Your task to perform on an android device: Go to Wikipedia Image 0: 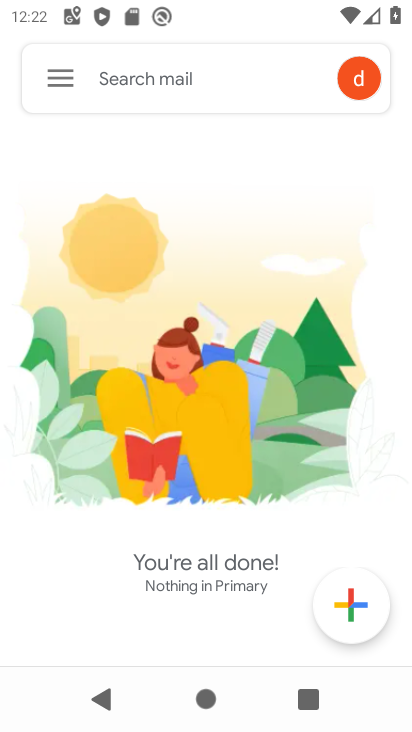
Step 0: press home button
Your task to perform on an android device: Go to Wikipedia Image 1: 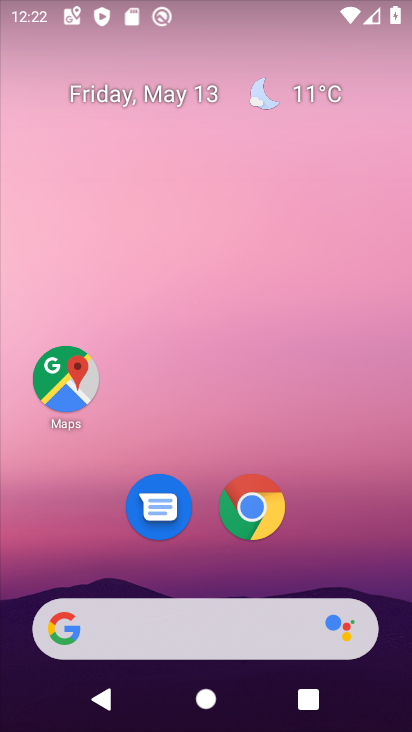
Step 1: click (232, 524)
Your task to perform on an android device: Go to Wikipedia Image 2: 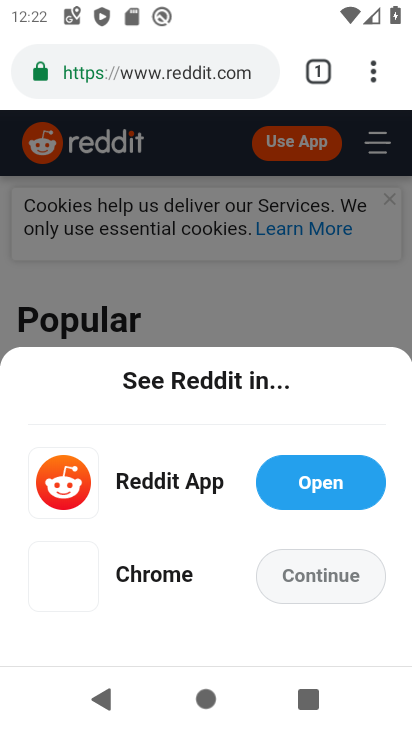
Step 2: click (305, 76)
Your task to perform on an android device: Go to Wikipedia Image 3: 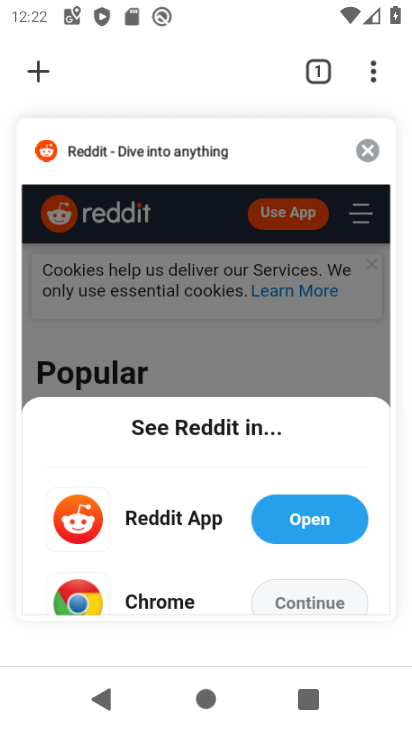
Step 3: click (37, 64)
Your task to perform on an android device: Go to Wikipedia Image 4: 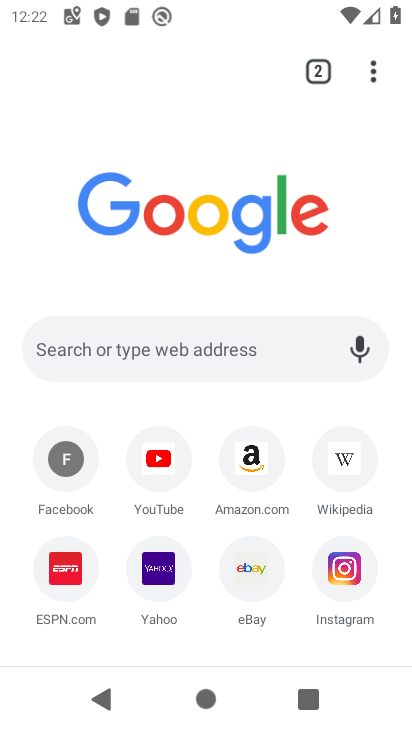
Step 4: click (343, 471)
Your task to perform on an android device: Go to Wikipedia Image 5: 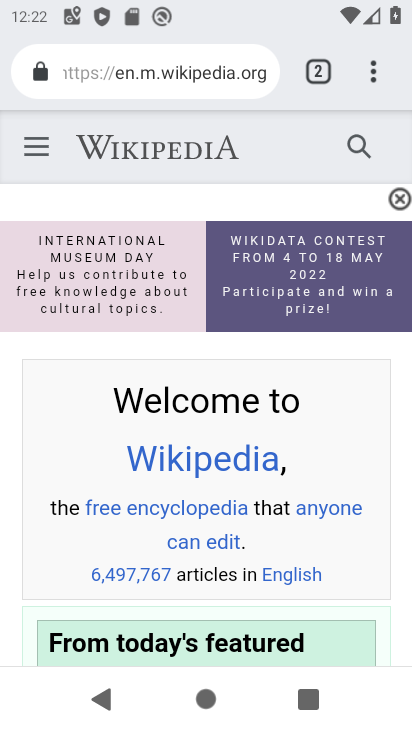
Step 5: task complete